Your task to perform on an android device: Open CNN.com Image 0: 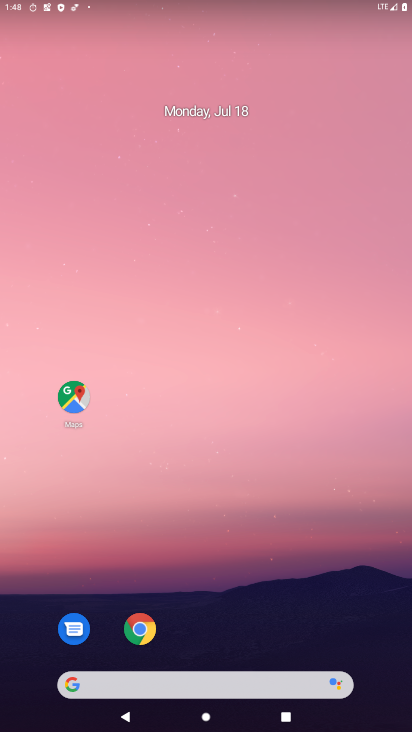
Step 0: press home button
Your task to perform on an android device: Open CNN.com Image 1: 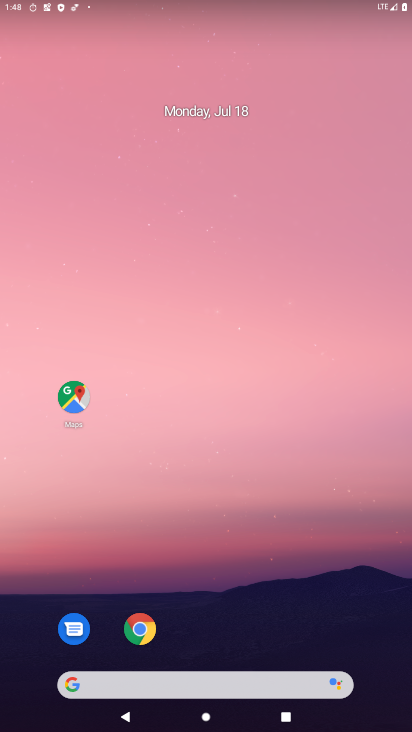
Step 1: drag from (215, 648) to (232, 45)
Your task to perform on an android device: Open CNN.com Image 2: 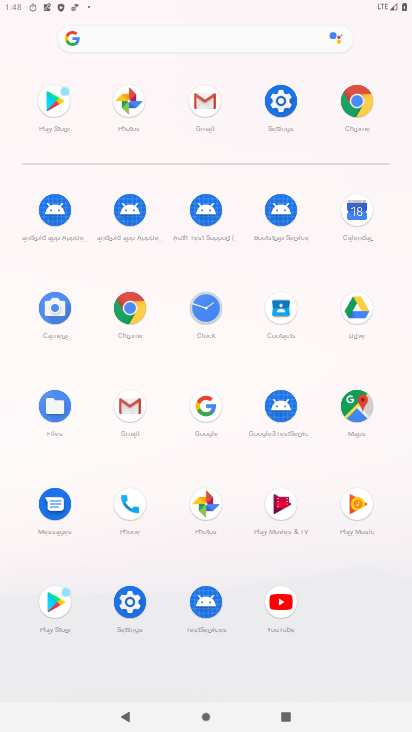
Step 2: click (356, 97)
Your task to perform on an android device: Open CNN.com Image 3: 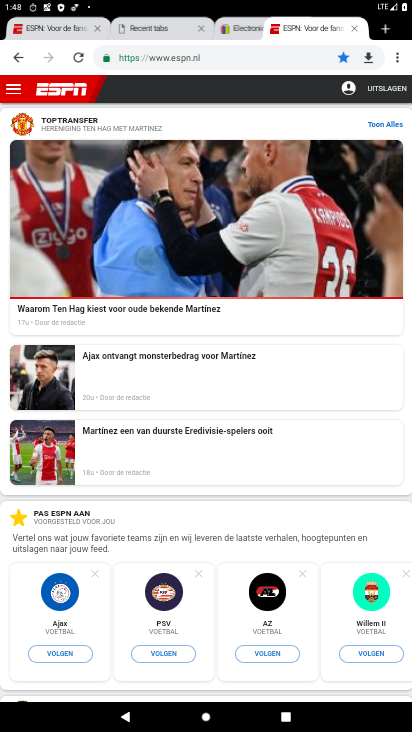
Step 3: click (353, 28)
Your task to perform on an android device: Open CNN.com Image 4: 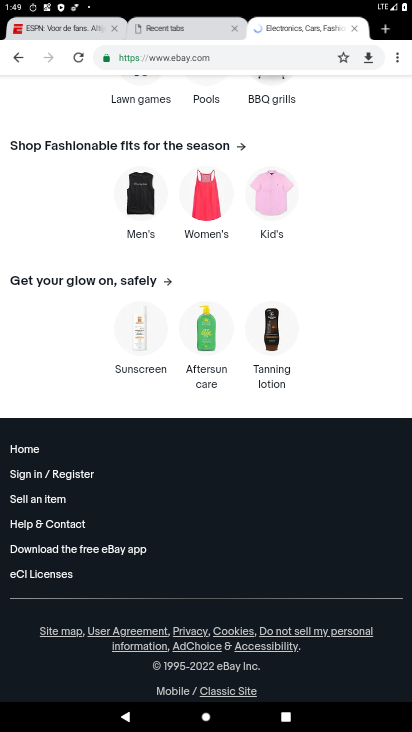
Step 4: click (353, 26)
Your task to perform on an android device: Open CNN.com Image 5: 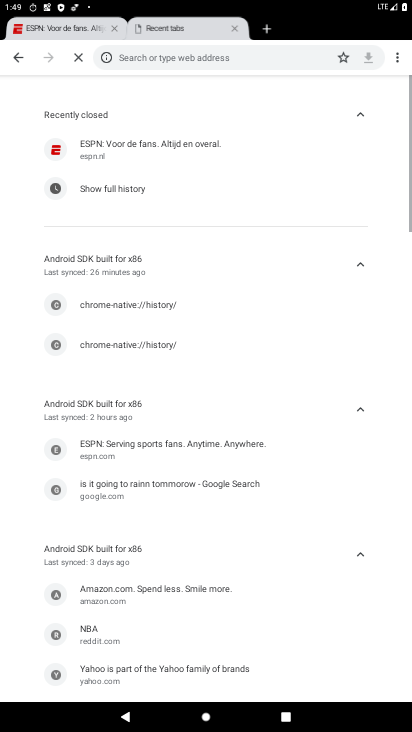
Step 5: click (234, 27)
Your task to perform on an android device: Open CNN.com Image 6: 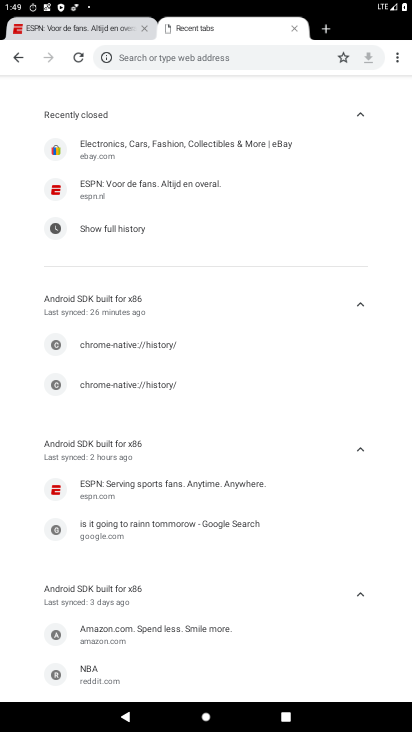
Step 6: click (295, 26)
Your task to perform on an android device: Open CNN.com Image 7: 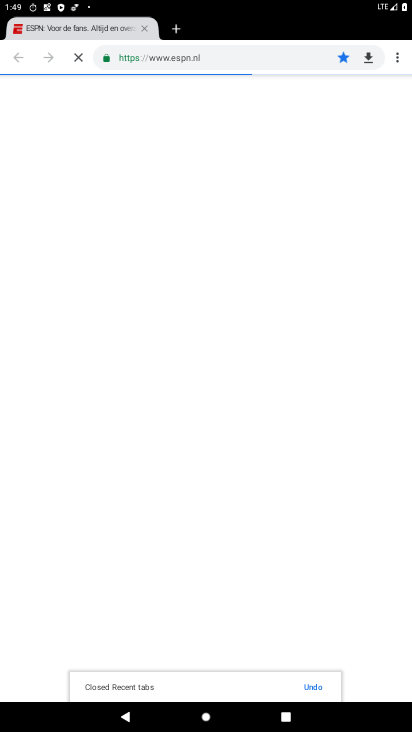
Step 7: click (174, 32)
Your task to perform on an android device: Open CNN.com Image 8: 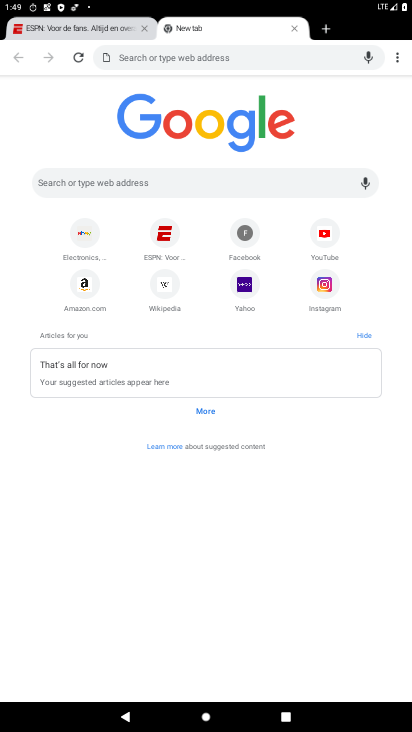
Step 8: click (174, 180)
Your task to perform on an android device: Open CNN.com Image 9: 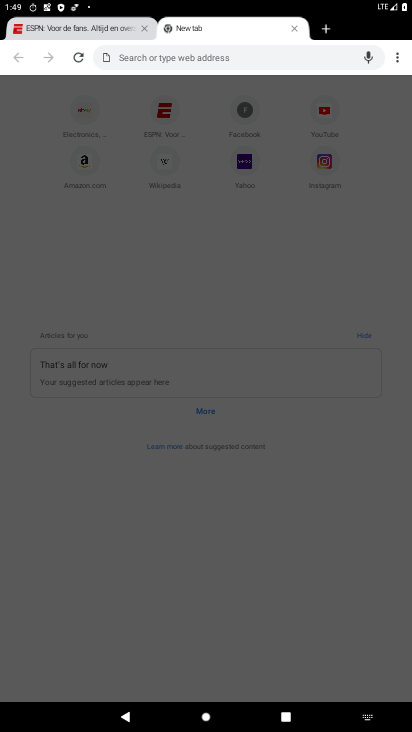
Step 9: type "cnn.com"
Your task to perform on an android device: Open CNN.com Image 10: 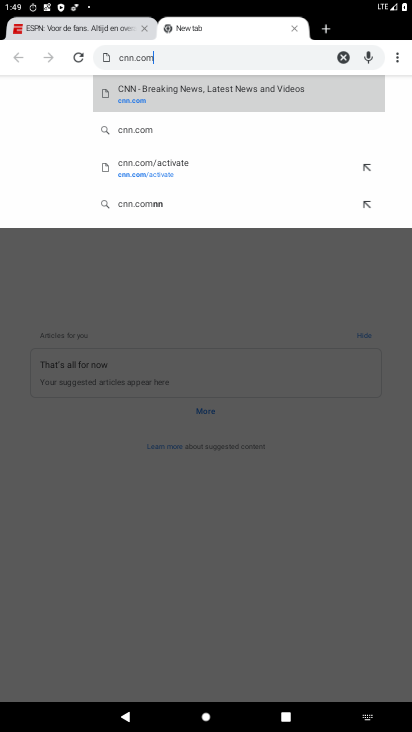
Step 10: type ""
Your task to perform on an android device: Open CNN.com Image 11: 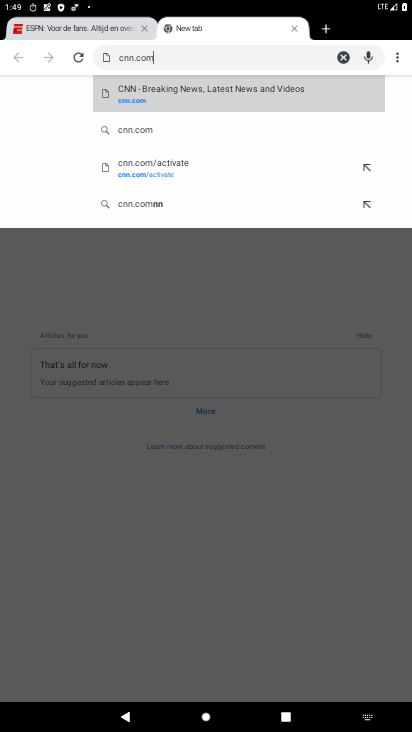
Step 11: click (159, 95)
Your task to perform on an android device: Open CNN.com Image 12: 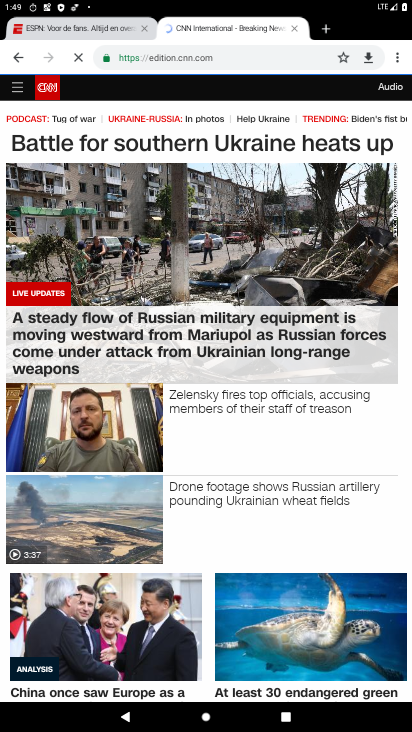
Step 12: drag from (214, 559) to (228, 97)
Your task to perform on an android device: Open CNN.com Image 13: 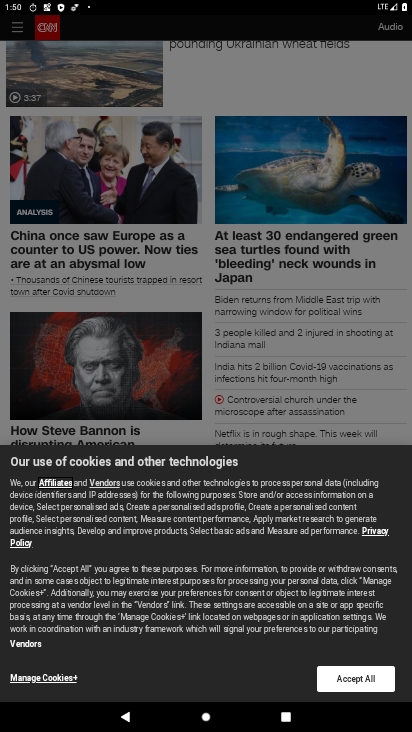
Step 13: click (361, 675)
Your task to perform on an android device: Open CNN.com Image 14: 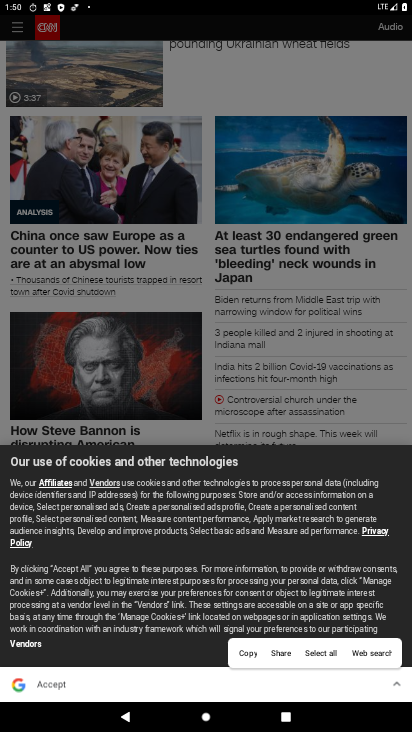
Step 14: task complete